Your task to perform on an android device: Open Amazon Image 0: 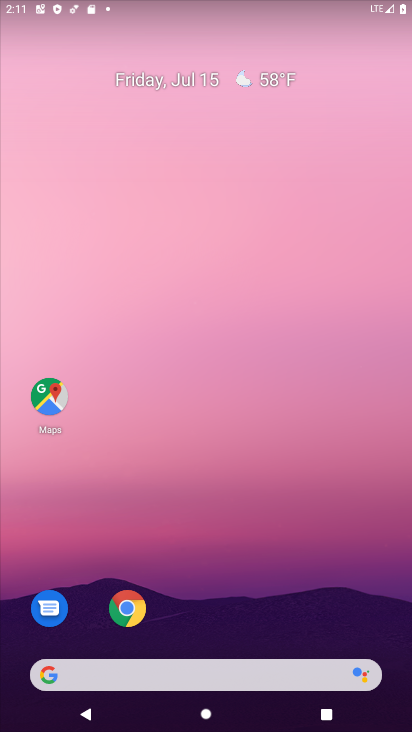
Step 0: drag from (221, 587) to (261, 93)
Your task to perform on an android device: Open Amazon Image 1: 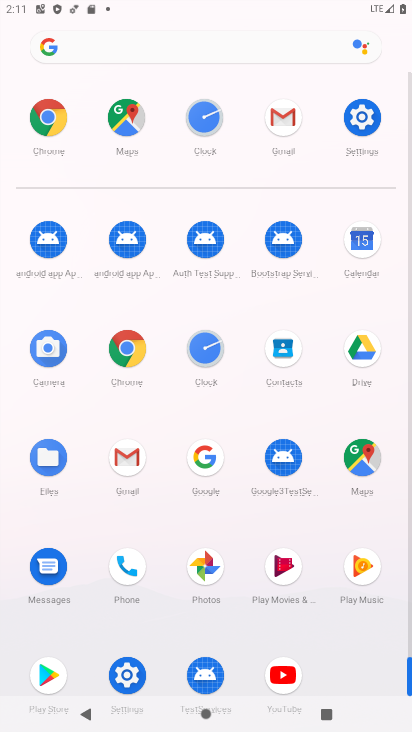
Step 1: click (125, 344)
Your task to perform on an android device: Open Amazon Image 2: 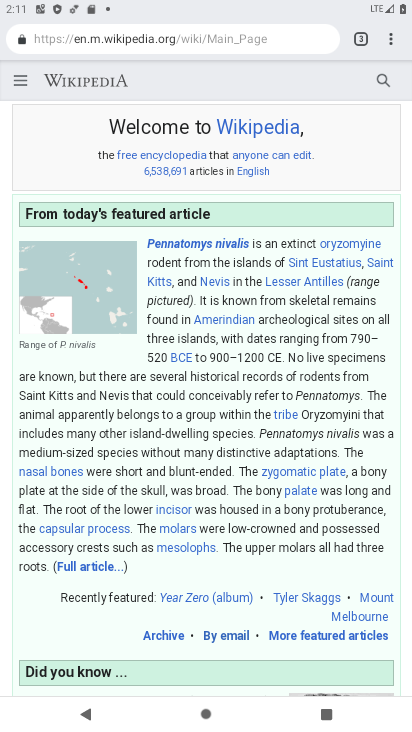
Step 2: drag from (396, 31) to (249, 76)
Your task to perform on an android device: Open Amazon Image 3: 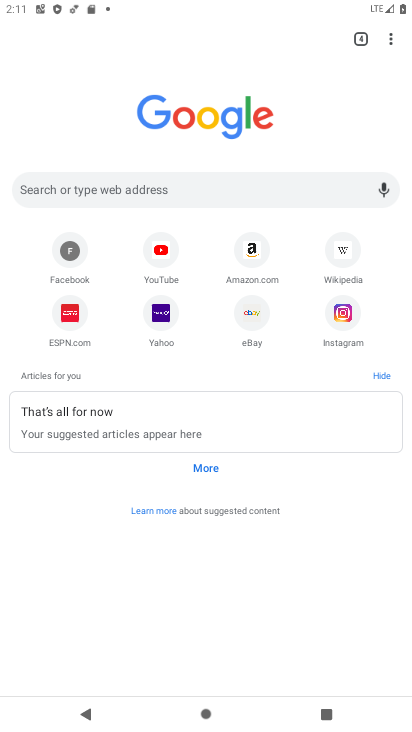
Step 3: click (247, 242)
Your task to perform on an android device: Open Amazon Image 4: 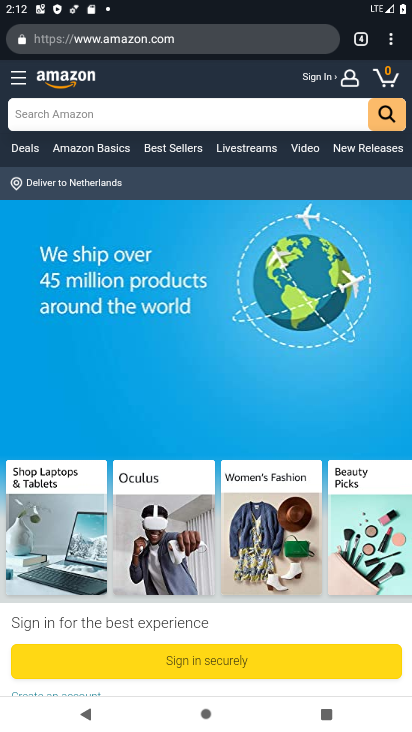
Step 4: task complete